Your task to perform on an android device: turn smart compose on in the gmail app Image 0: 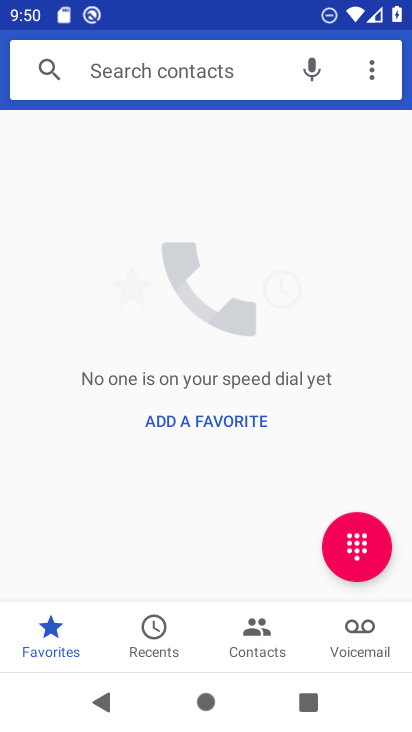
Step 0: press home button
Your task to perform on an android device: turn smart compose on in the gmail app Image 1: 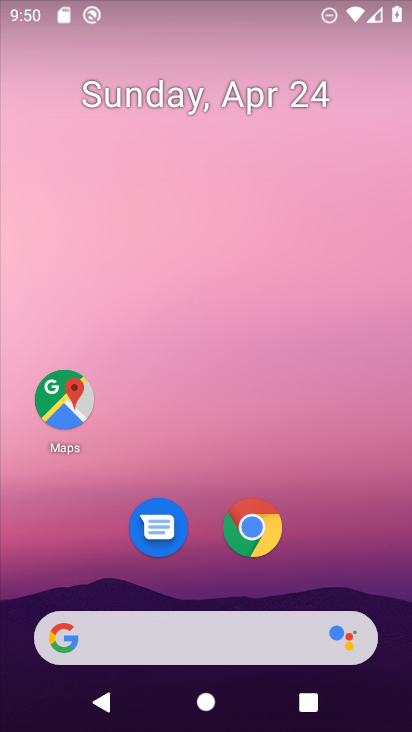
Step 1: drag from (387, 618) to (213, 112)
Your task to perform on an android device: turn smart compose on in the gmail app Image 2: 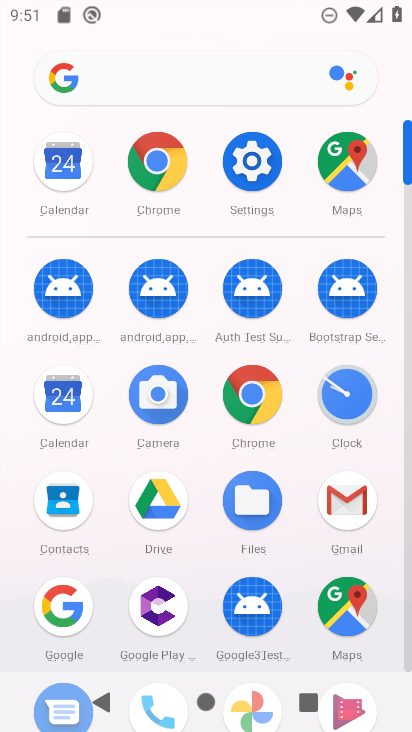
Step 2: click (341, 500)
Your task to perform on an android device: turn smart compose on in the gmail app Image 3: 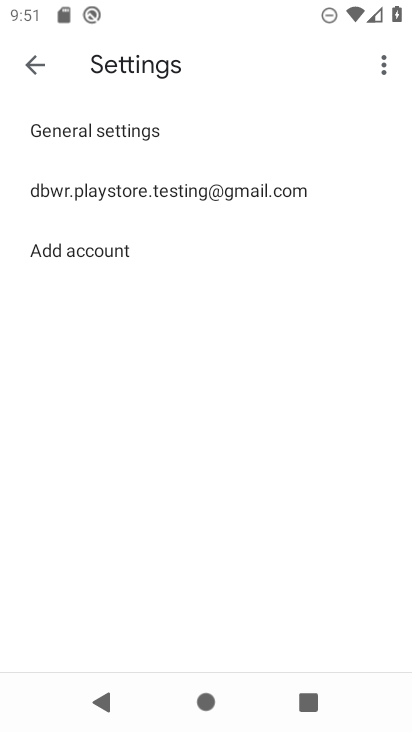
Step 3: click (253, 206)
Your task to perform on an android device: turn smart compose on in the gmail app Image 4: 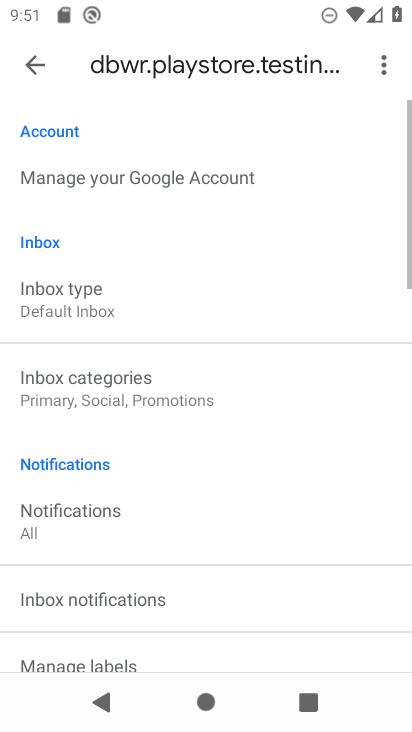
Step 4: task complete